Your task to perform on an android device: refresh tabs in the chrome app Image 0: 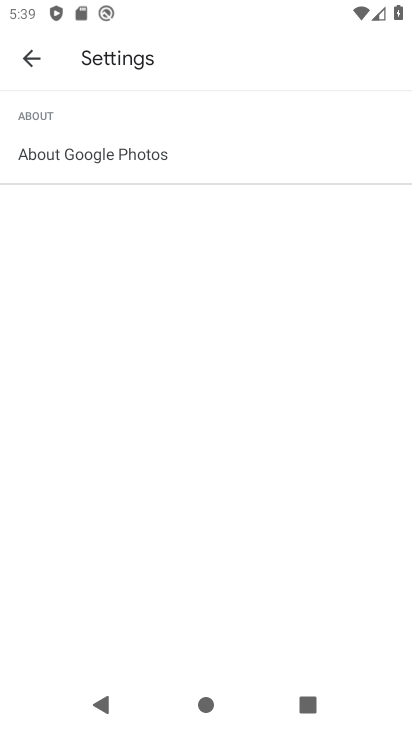
Step 0: press home button
Your task to perform on an android device: refresh tabs in the chrome app Image 1: 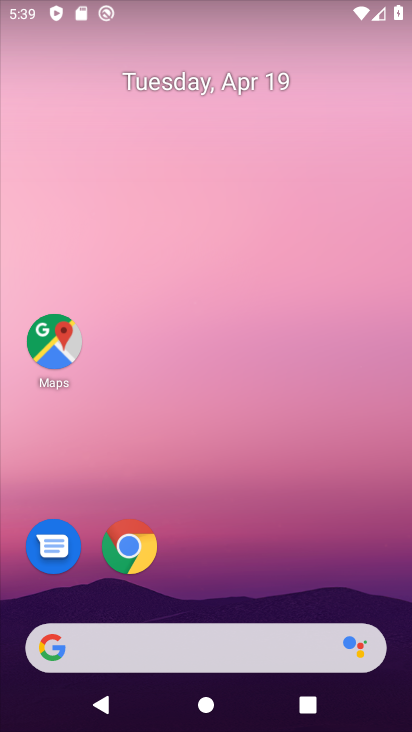
Step 1: drag from (276, 294) to (291, 67)
Your task to perform on an android device: refresh tabs in the chrome app Image 2: 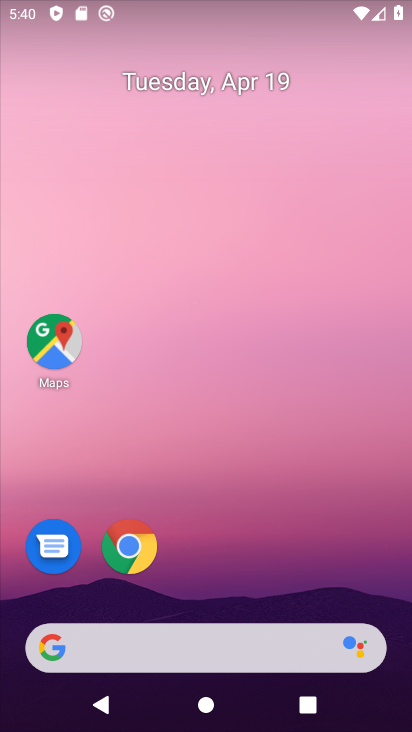
Step 2: drag from (247, 557) to (271, 179)
Your task to perform on an android device: refresh tabs in the chrome app Image 3: 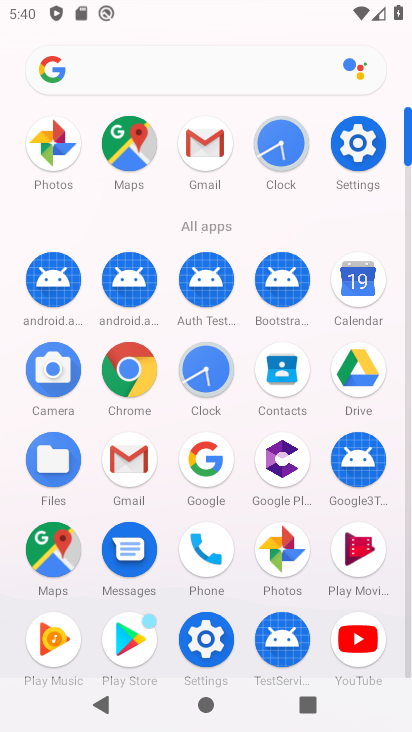
Step 3: click (125, 372)
Your task to perform on an android device: refresh tabs in the chrome app Image 4: 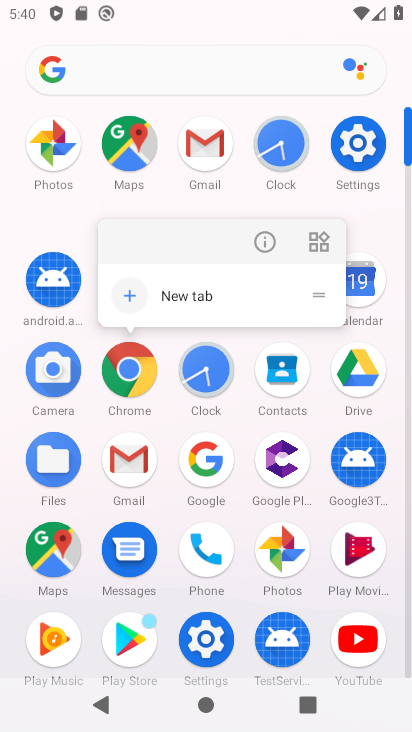
Step 4: click (134, 394)
Your task to perform on an android device: refresh tabs in the chrome app Image 5: 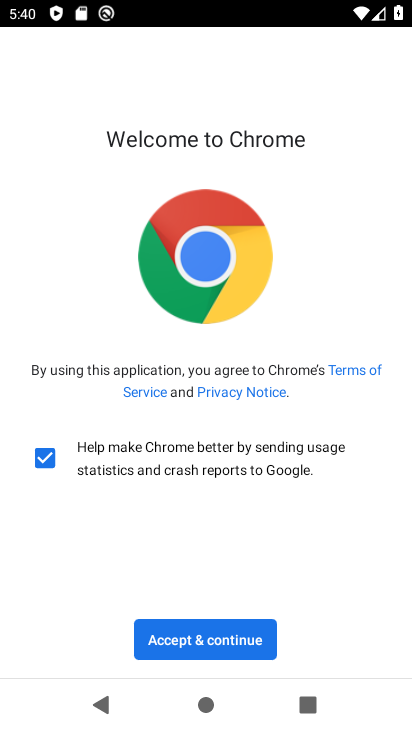
Step 5: click (225, 645)
Your task to perform on an android device: refresh tabs in the chrome app Image 6: 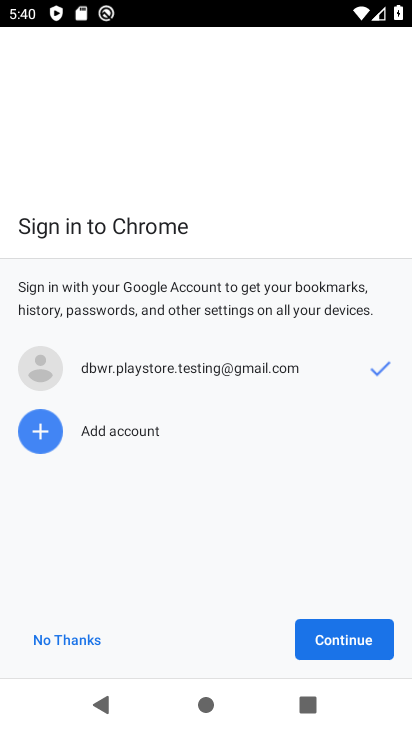
Step 6: click (328, 637)
Your task to perform on an android device: refresh tabs in the chrome app Image 7: 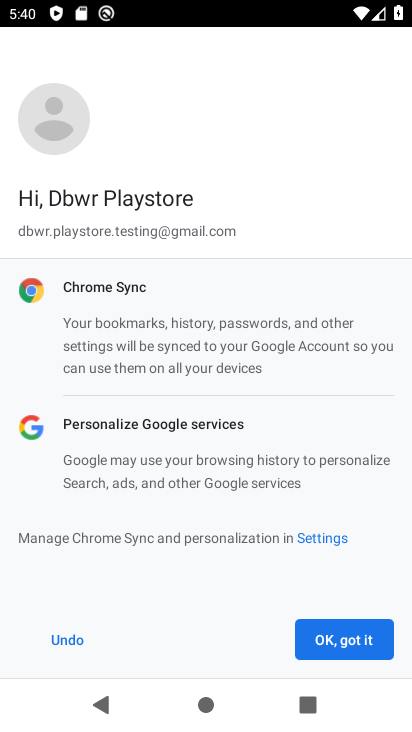
Step 7: click (327, 636)
Your task to perform on an android device: refresh tabs in the chrome app Image 8: 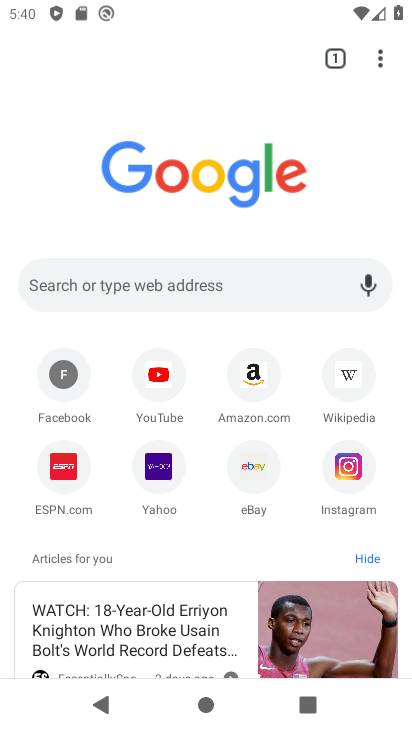
Step 8: click (380, 56)
Your task to perform on an android device: refresh tabs in the chrome app Image 9: 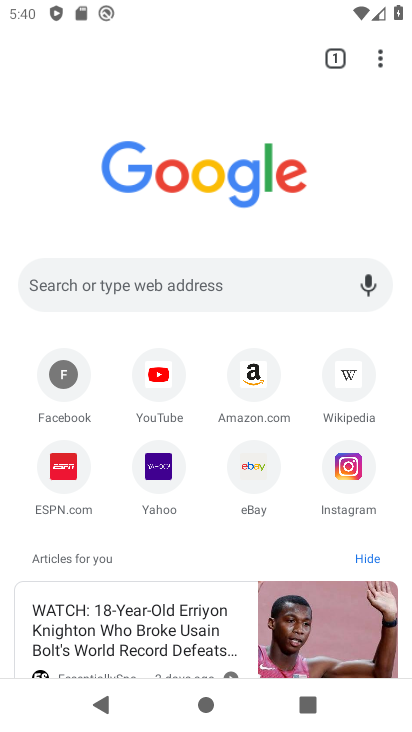
Step 9: task complete